Your task to perform on an android device: Go to Yahoo.com Image 0: 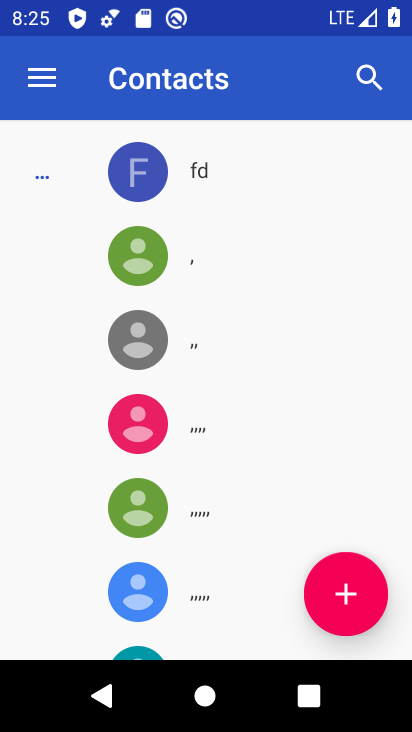
Step 0: press home button
Your task to perform on an android device: Go to Yahoo.com Image 1: 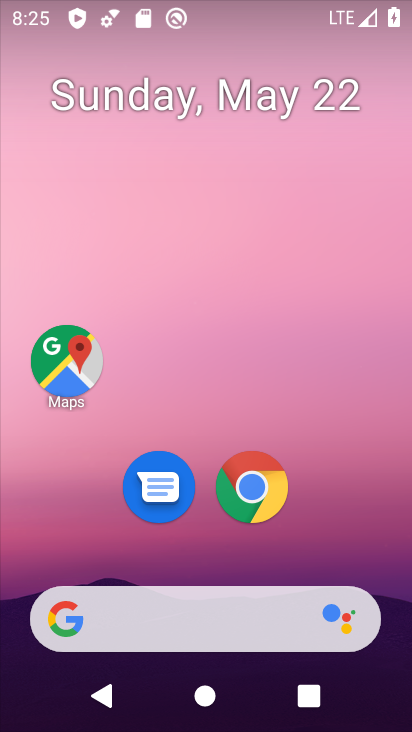
Step 1: drag from (332, 522) to (303, 14)
Your task to perform on an android device: Go to Yahoo.com Image 2: 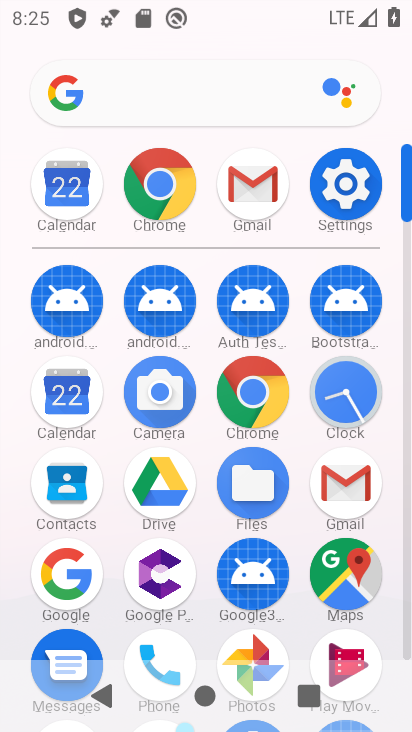
Step 2: click (115, 163)
Your task to perform on an android device: Go to Yahoo.com Image 3: 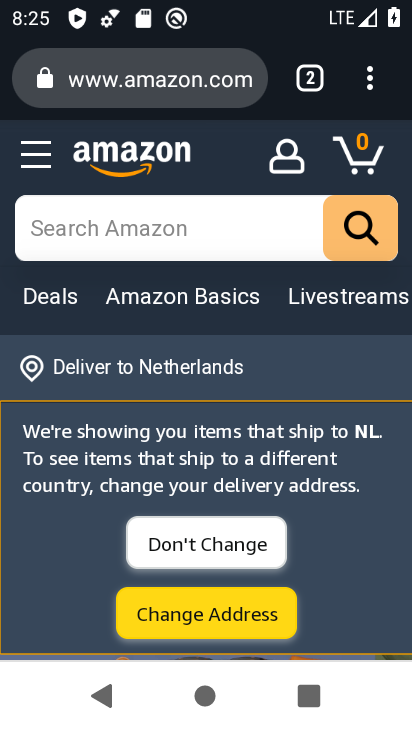
Step 3: click (188, 63)
Your task to perform on an android device: Go to Yahoo.com Image 4: 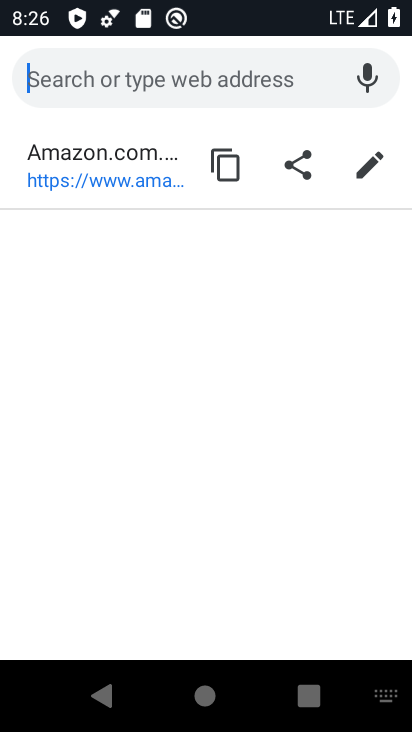
Step 4: type "yahoo"
Your task to perform on an android device: Go to Yahoo.com Image 5: 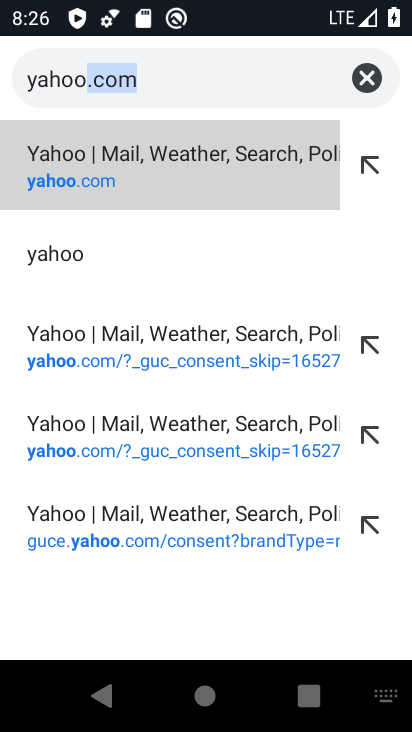
Step 5: click (61, 152)
Your task to perform on an android device: Go to Yahoo.com Image 6: 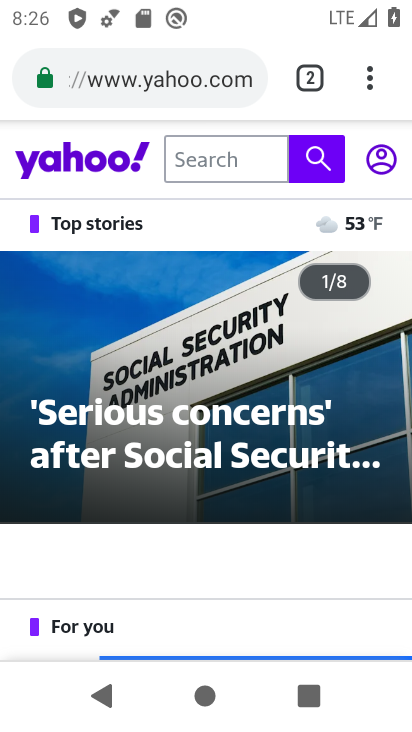
Step 6: task complete